Your task to perform on an android device: Show me productivity apps on the Play Store Image 0: 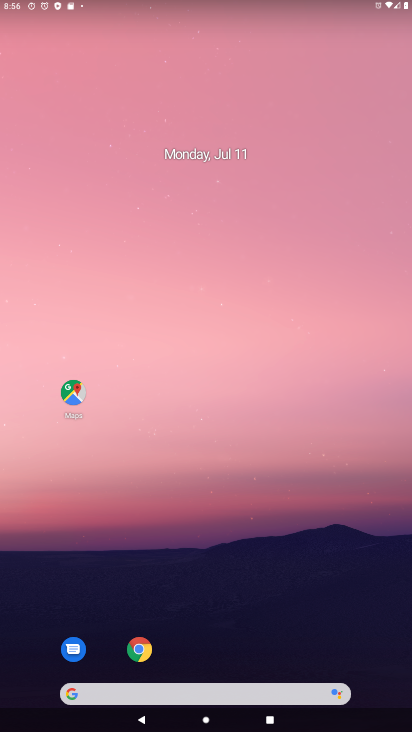
Step 0: drag from (217, 685) to (169, 200)
Your task to perform on an android device: Show me productivity apps on the Play Store Image 1: 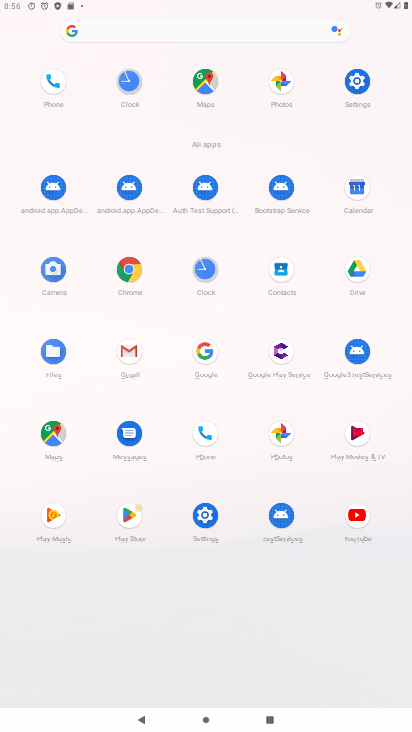
Step 1: click (132, 518)
Your task to perform on an android device: Show me productivity apps on the Play Store Image 2: 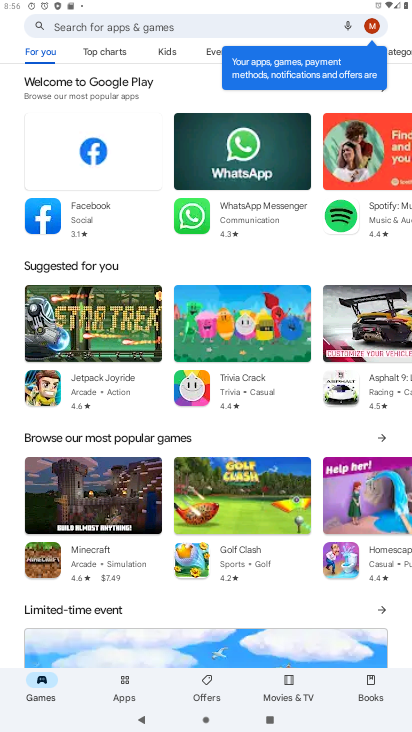
Step 2: click (120, 685)
Your task to perform on an android device: Show me productivity apps on the Play Store Image 3: 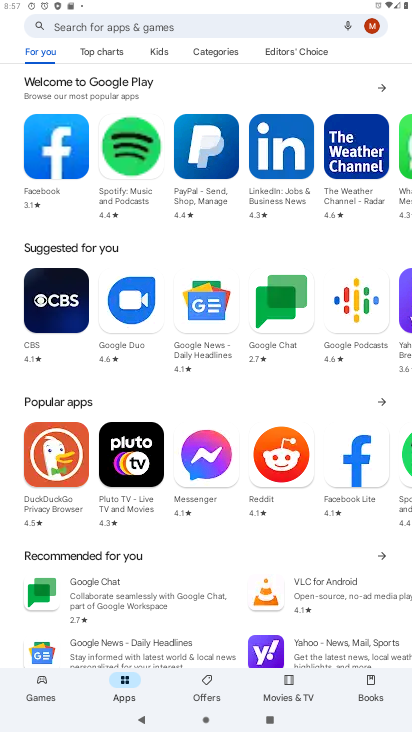
Step 3: click (218, 50)
Your task to perform on an android device: Show me productivity apps on the Play Store Image 4: 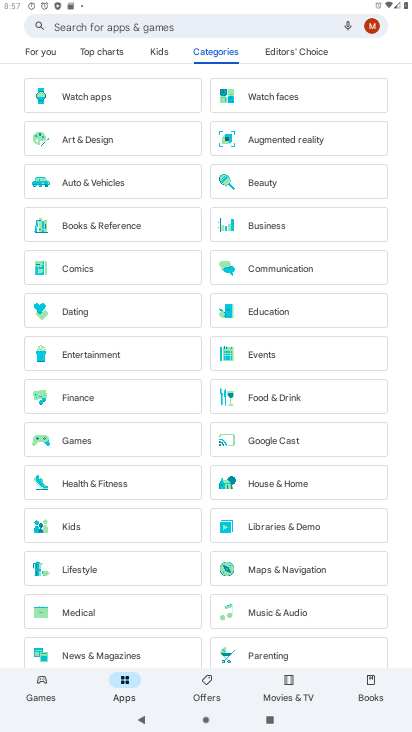
Step 4: drag from (123, 610) to (230, 458)
Your task to perform on an android device: Show me productivity apps on the Play Store Image 5: 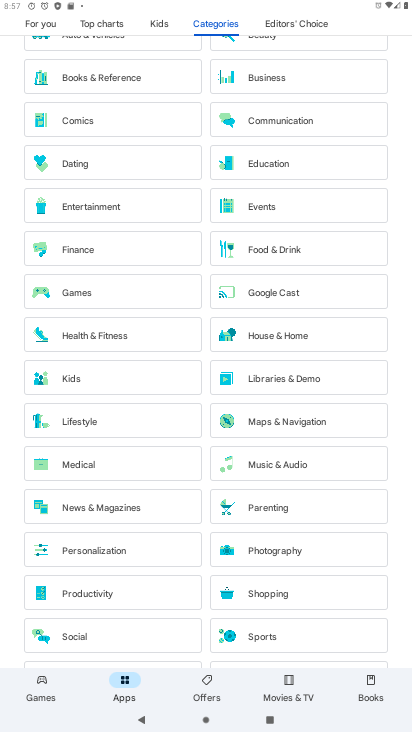
Step 5: click (76, 599)
Your task to perform on an android device: Show me productivity apps on the Play Store Image 6: 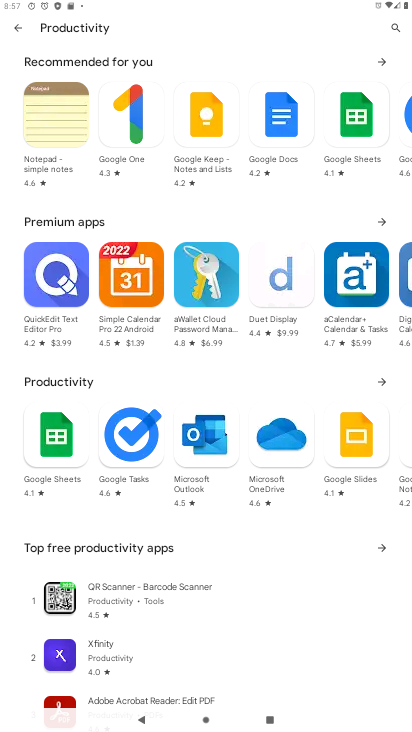
Step 6: task complete